Your task to perform on an android device: toggle show notifications on the lock screen Image 0: 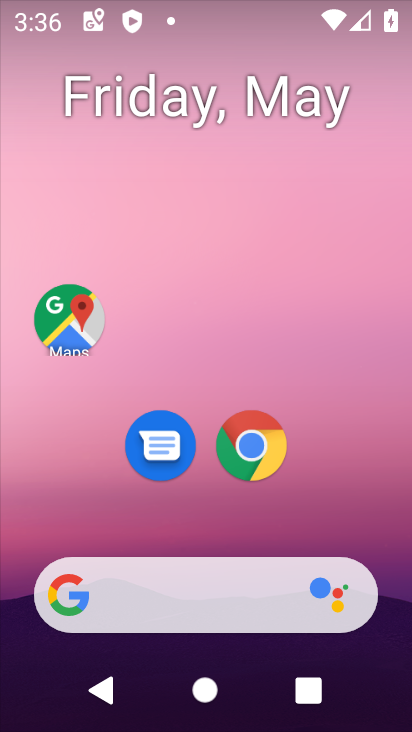
Step 0: drag from (220, 545) to (239, 6)
Your task to perform on an android device: toggle show notifications on the lock screen Image 1: 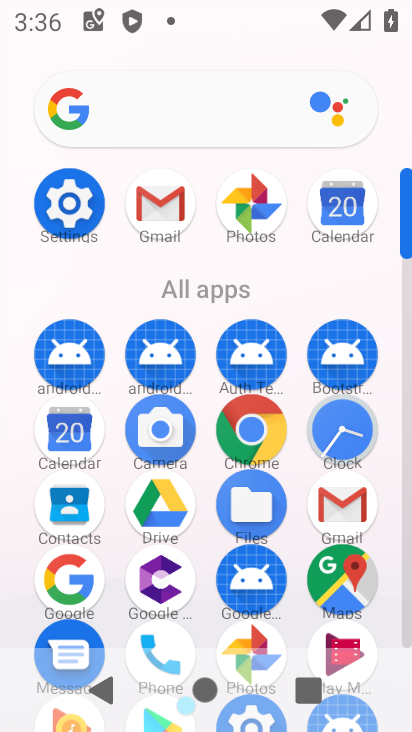
Step 1: click (86, 216)
Your task to perform on an android device: toggle show notifications on the lock screen Image 2: 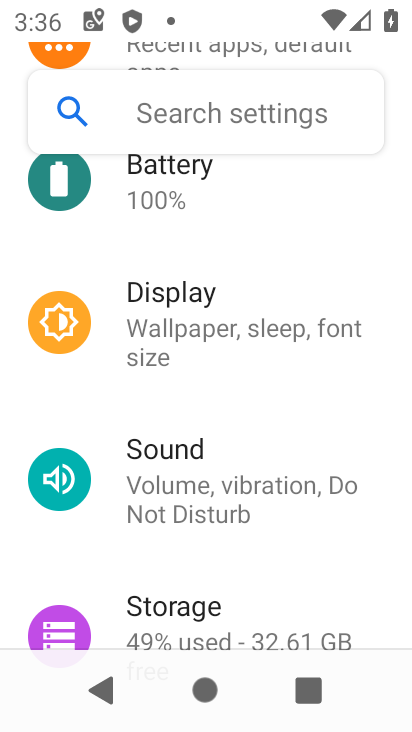
Step 2: drag from (249, 258) to (245, 630)
Your task to perform on an android device: toggle show notifications on the lock screen Image 3: 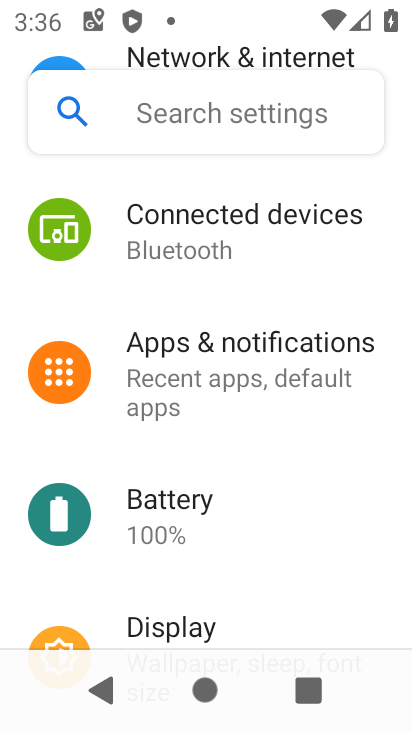
Step 3: click (259, 354)
Your task to perform on an android device: toggle show notifications on the lock screen Image 4: 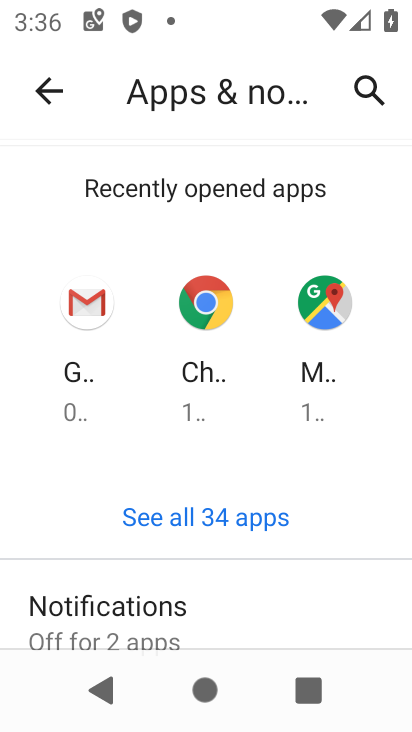
Step 4: drag from (206, 536) to (226, 396)
Your task to perform on an android device: toggle show notifications on the lock screen Image 5: 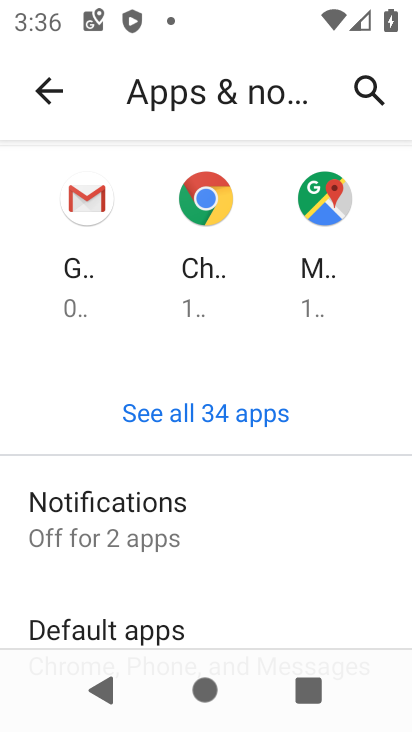
Step 5: click (171, 543)
Your task to perform on an android device: toggle show notifications on the lock screen Image 6: 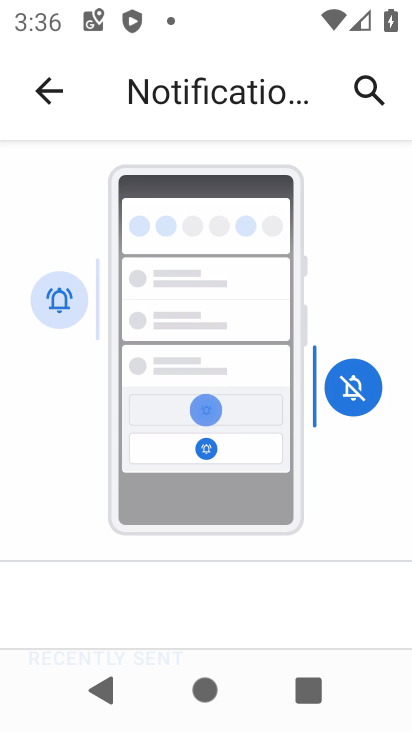
Step 6: drag from (213, 530) to (268, 229)
Your task to perform on an android device: toggle show notifications on the lock screen Image 7: 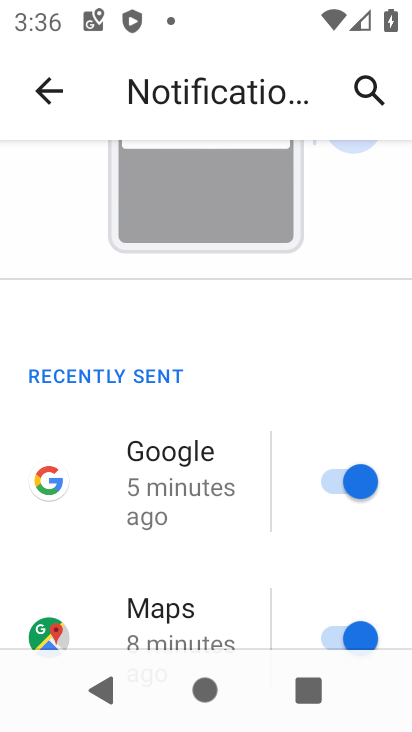
Step 7: drag from (210, 520) to (290, 22)
Your task to perform on an android device: toggle show notifications on the lock screen Image 8: 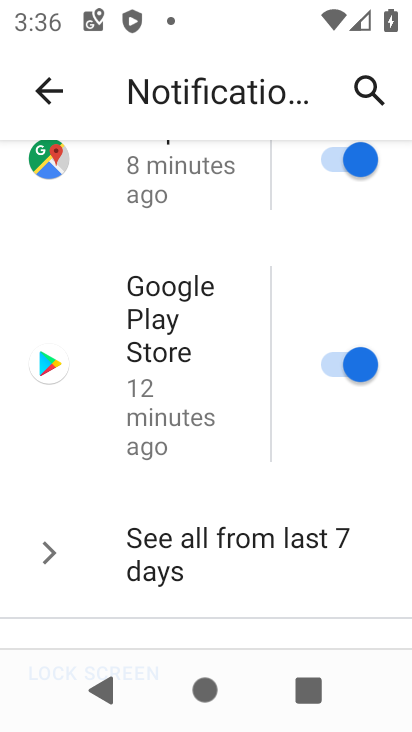
Step 8: drag from (221, 476) to (250, 189)
Your task to perform on an android device: toggle show notifications on the lock screen Image 9: 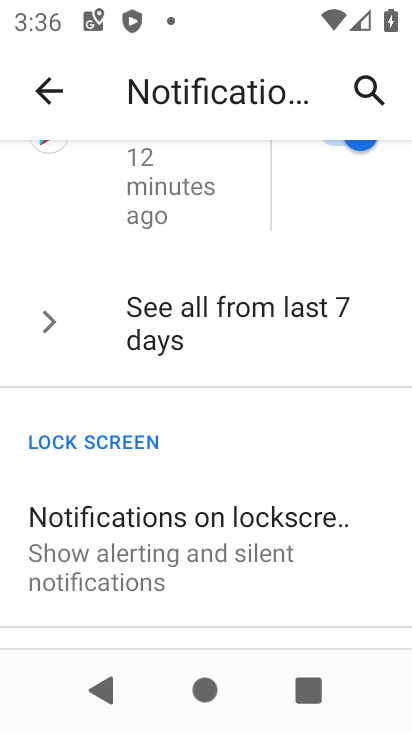
Step 9: click (177, 539)
Your task to perform on an android device: toggle show notifications on the lock screen Image 10: 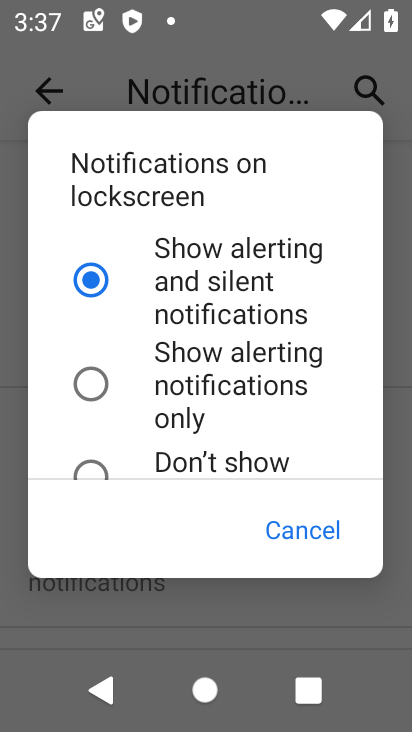
Step 10: click (156, 463)
Your task to perform on an android device: toggle show notifications on the lock screen Image 11: 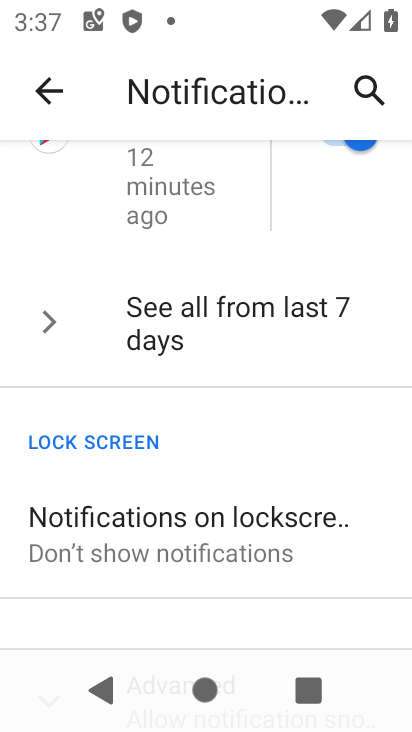
Step 11: task complete